Your task to perform on an android device: See recent photos Image 0: 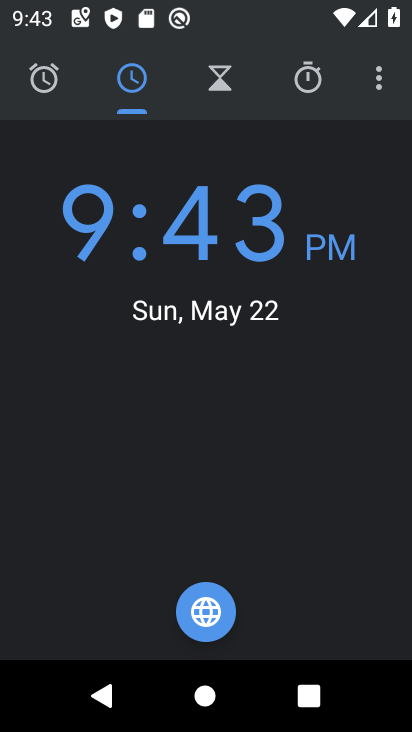
Step 0: press home button
Your task to perform on an android device: See recent photos Image 1: 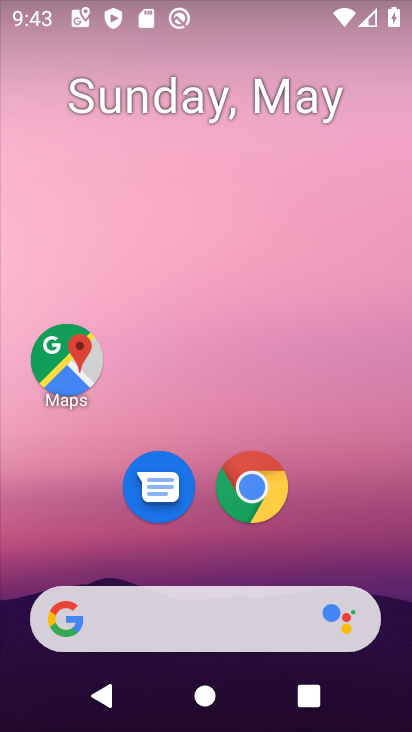
Step 1: drag from (356, 528) to (349, 152)
Your task to perform on an android device: See recent photos Image 2: 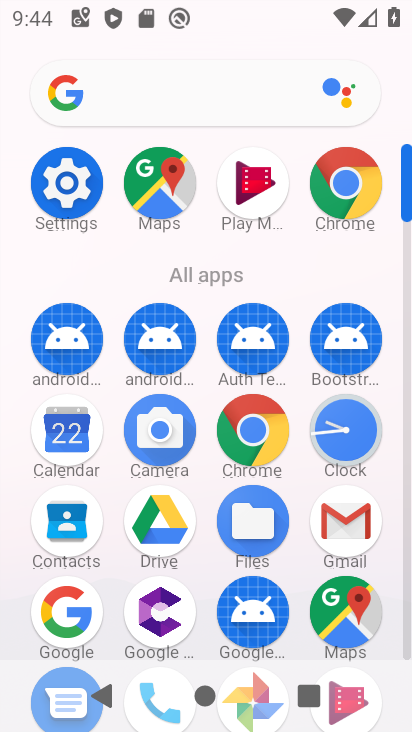
Step 2: drag from (392, 625) to (381, 366)
Your task to perform on an android device: See recent photos Image 3: 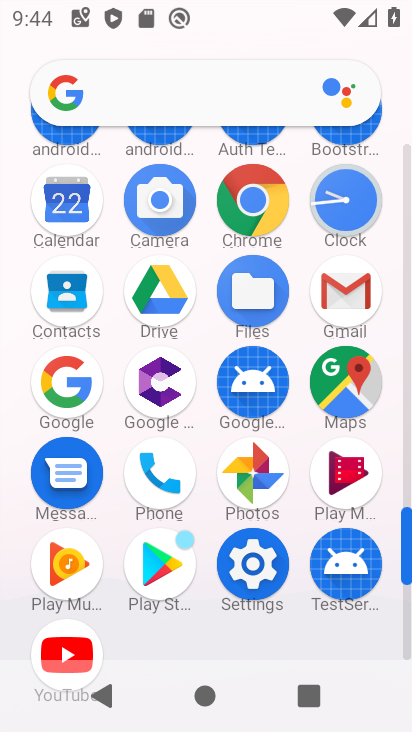
Step 3: click (246, 478)
Your task to perform on an android device: See recent photos Image 4: 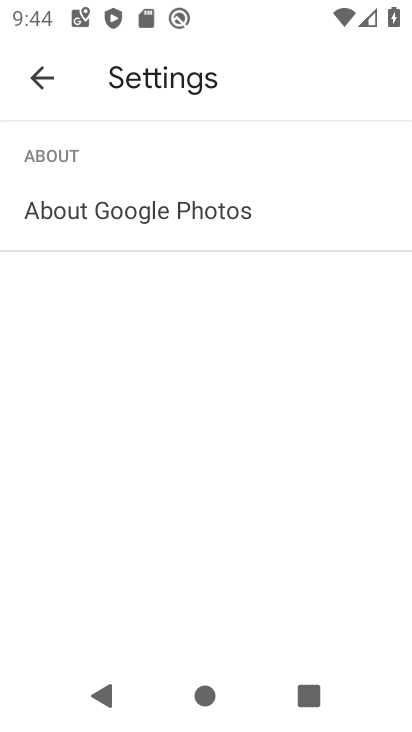
Step 4: click (29, 66)
Your task to perform on an android device: See recent photos Image 5: 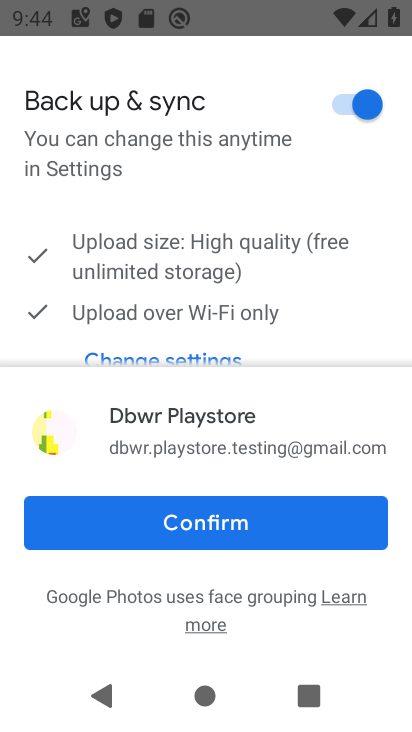
Step 5: click (287, 533)
Your task to perform on an android device: See recent photos Image 6: 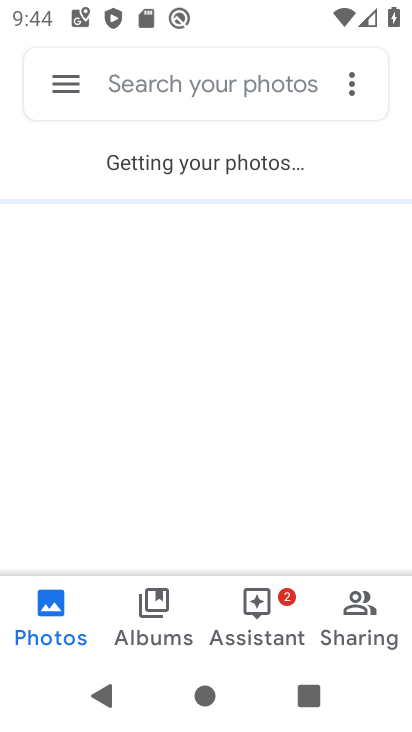
Step 6: click (63, 611)
Your task to perform on an android device: See recent photos Image 7: 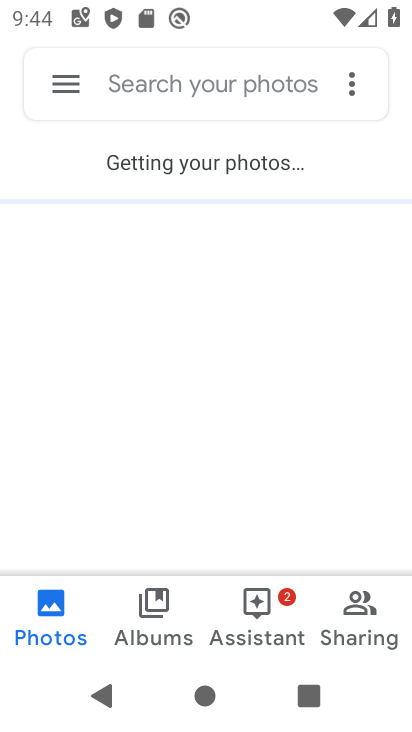
Step 7: task complete